Your task to perform on an android device: Set the phone to "Do not disturb". Image 0: 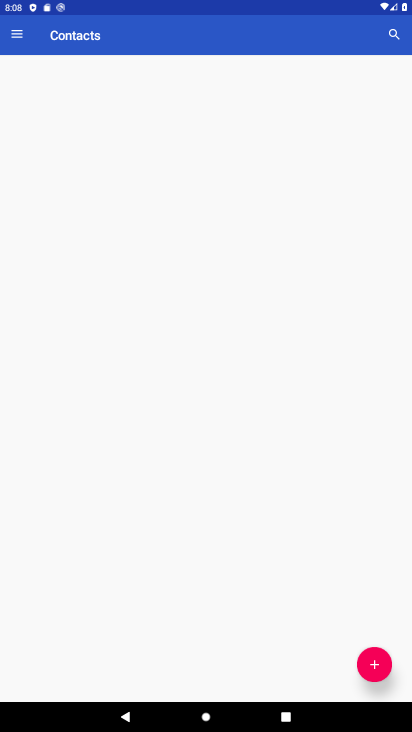
Step 0: drag from (214, 660) to (152, 215)
Your task to perform on an android device: Set the phone to "Do not disturb". Image 1: 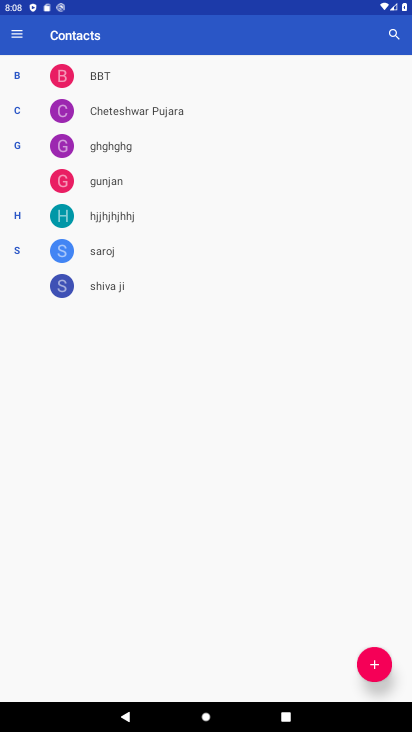
Step 1: press home button
Your task to perform on an android device: Set the phone to "Do not disturb". Image 2: 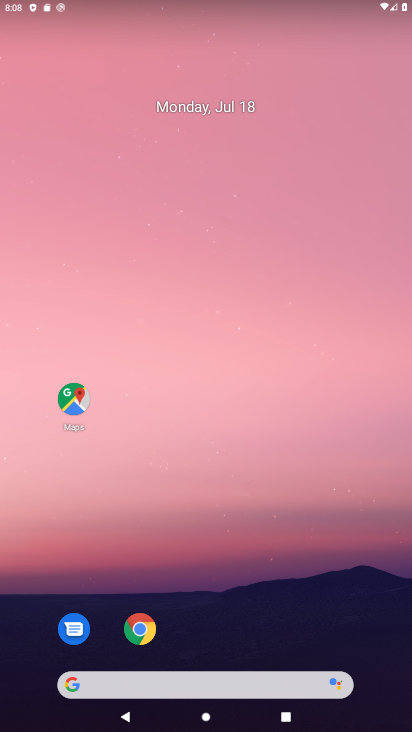
Step 2: drag from (226, 31) to (258, 565)
Your task to perform on an android device: Set the phone to "Do not disturb". Image 3: 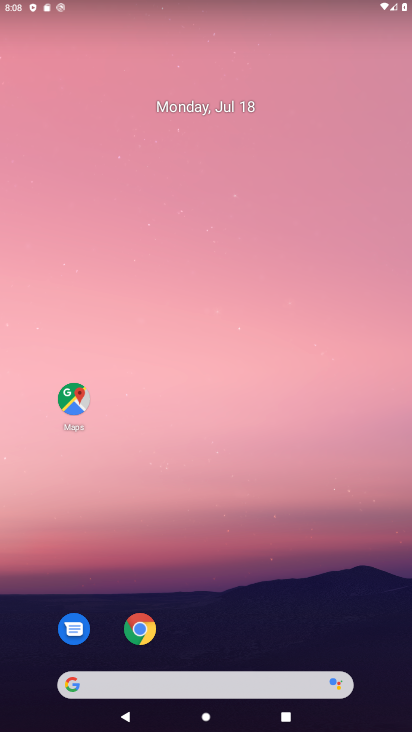
Step 3: drag from (251, 2) to (259, 539)
Your task to perform on an android device: Set the phone to "Do not disturb". Image 4: 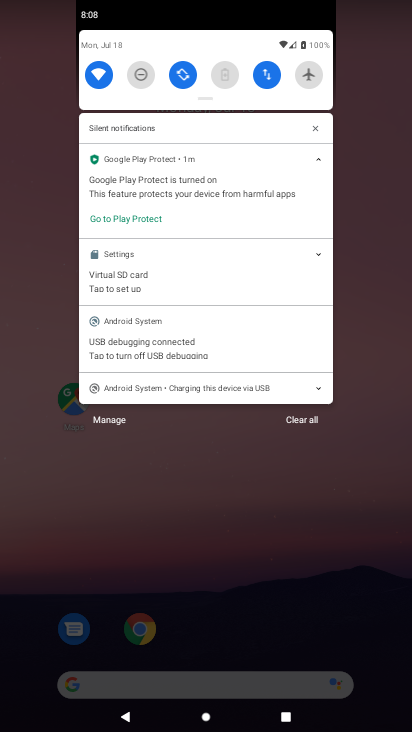
Step 4: click (146, 73)
Your task to perform on an android device: Set the phone to "Do not disturb". Image 5: 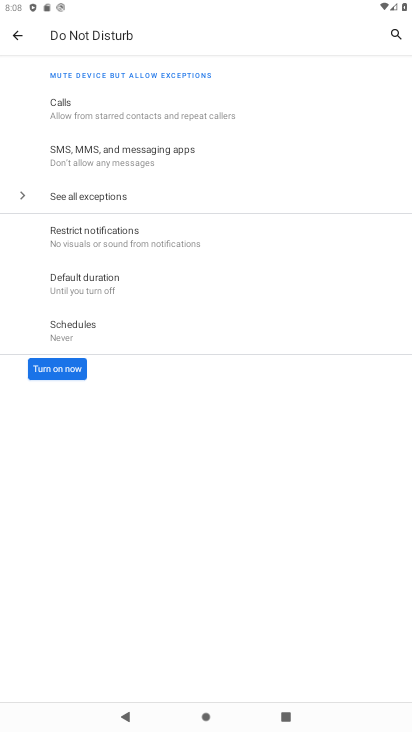
Step 5: click (69, 368)
Your task to perform on an android device: Set the phone to "Do not disturb". Image 6: 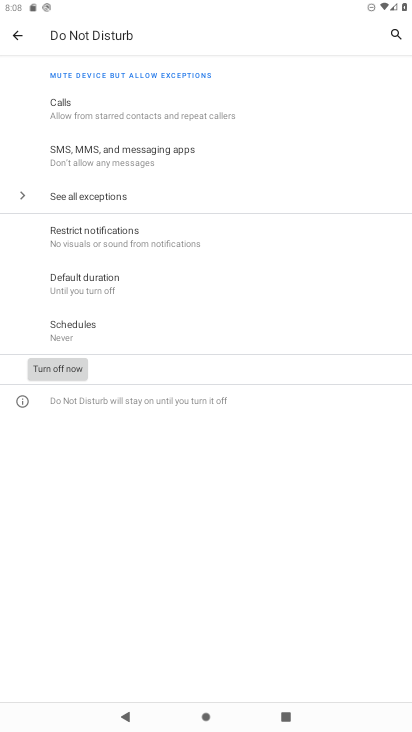
Step 6: task complete